Your task to perform on an android device: Go to notification settings Image 0: 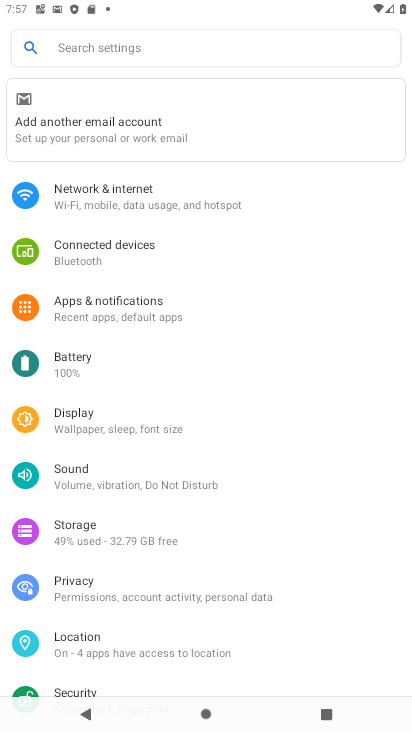
Step 0: press home button
Your task to perform on an android device: Go to notification settings Image 1: 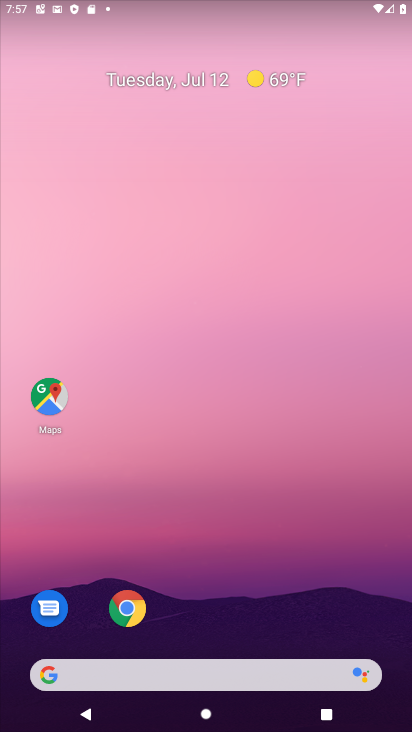
Step 1: drag from (230, 646) to (268, 246)
Your task to perform on an android device: Go to notification settings Image 2: 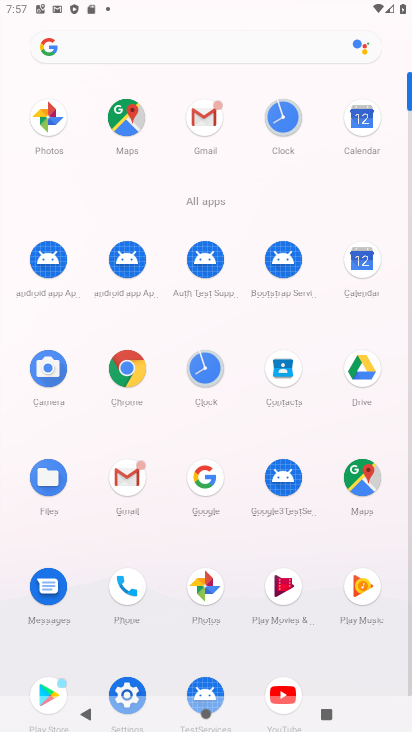
Step 2: click (128, 684)
Your task to perform on an android device: Go to notification settings Image 3: 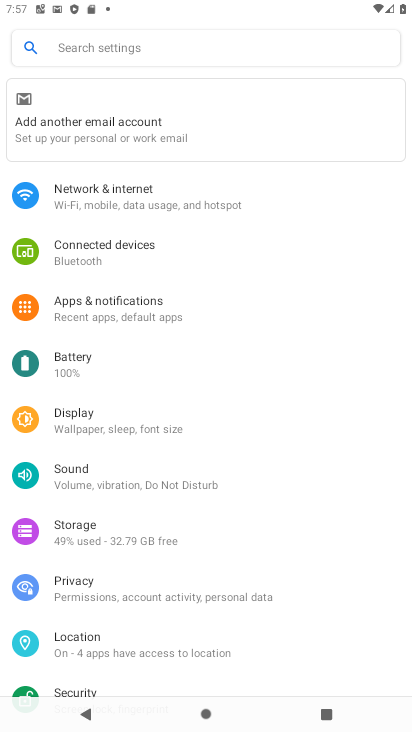
Step 3: click (83, 302)
Your task to perform on an android device: Go to notification settings Image 4: 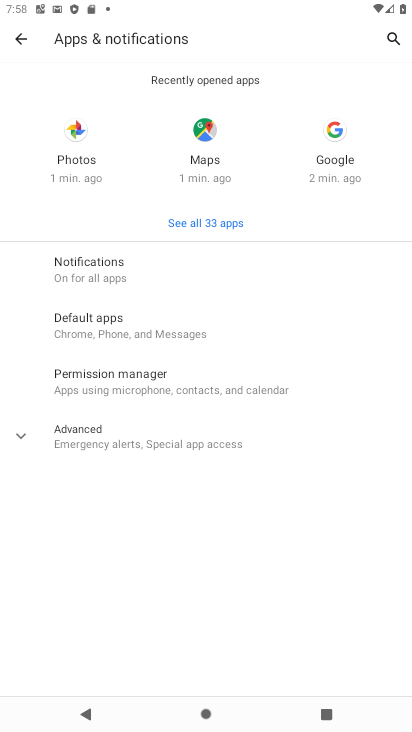
Step 4: task complete